Your task to perform on an android device: star an email in the gmail app Image 0: 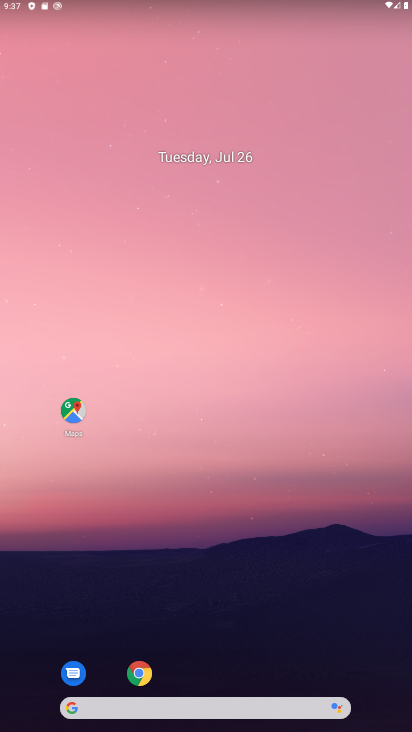
Step 0: drag from (72, 665) to (349, 175)
Your task to perform on an android device: star an email in the gmail app Image 1: 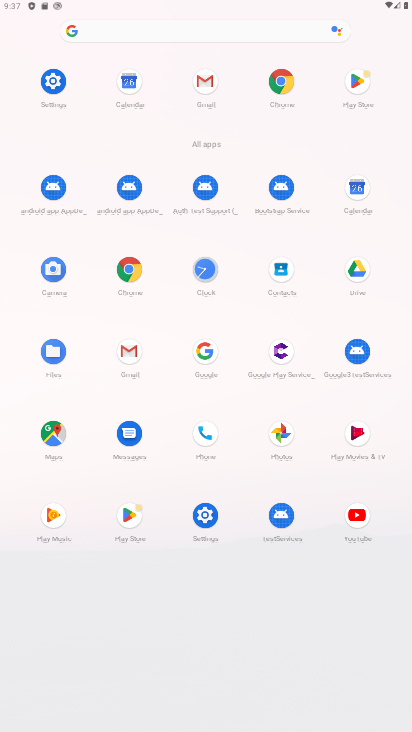
Step 1: click (135, 373)
Your task to perform on an android device: star an email in the gmail app Image 2: 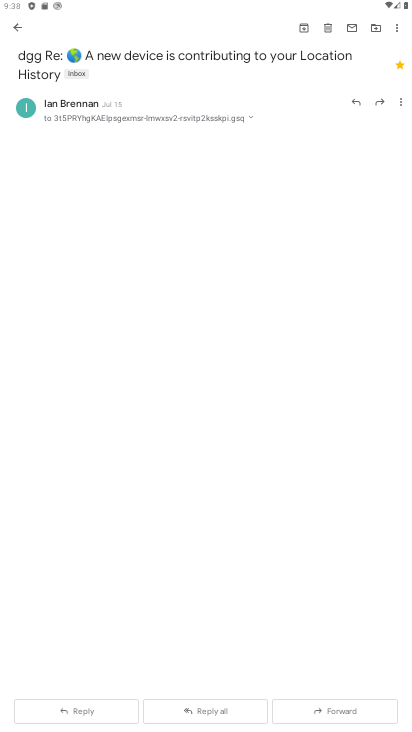
Step 2: click (20, 26)
Your task to perform on an android device: star an email in the gmail app Image 3: 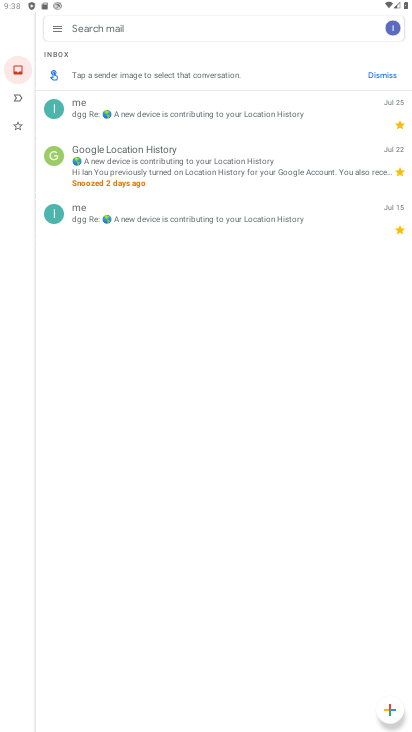
Step 3: task complete